Your task to perform on an android device: change text size in settings app Image 0: 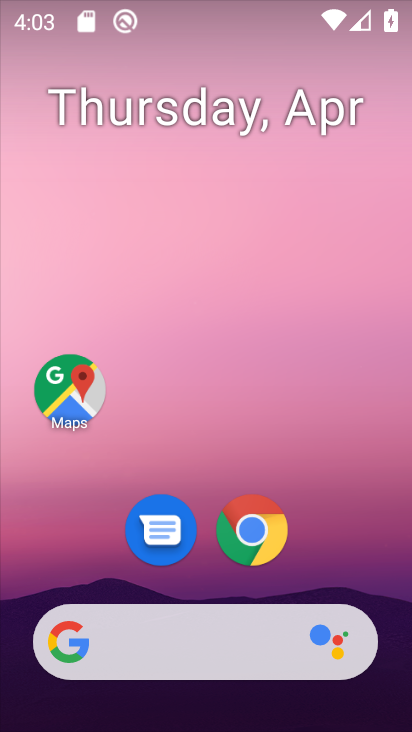
Step 0: drag from (191, 566) to (309, 2)
Your task to perform on an android device: change text size in settings app Image 1: 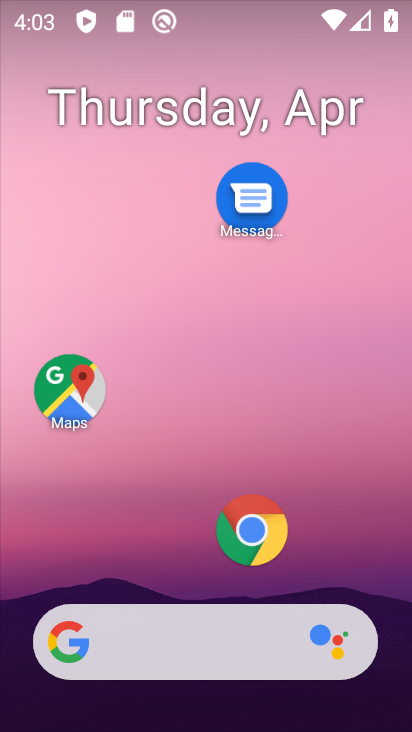
Step 1: drag from (145, 558) to (287, 0)
Your task to perform on an android device: change text size in settings app Image 2: 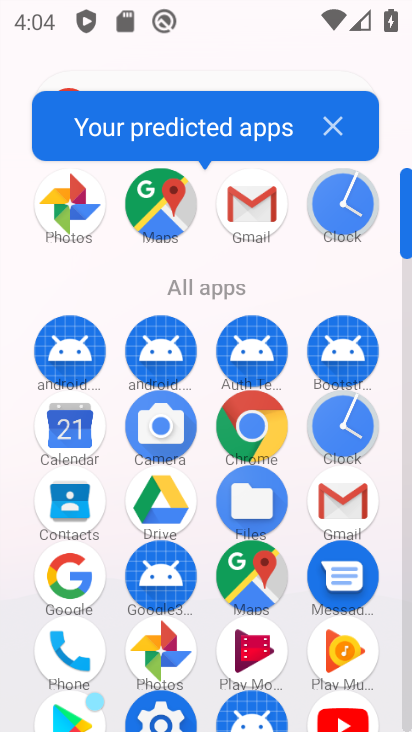
Step 2: click (163, 725)
Your task to perform on an android device: change text size in settings app Image 3: 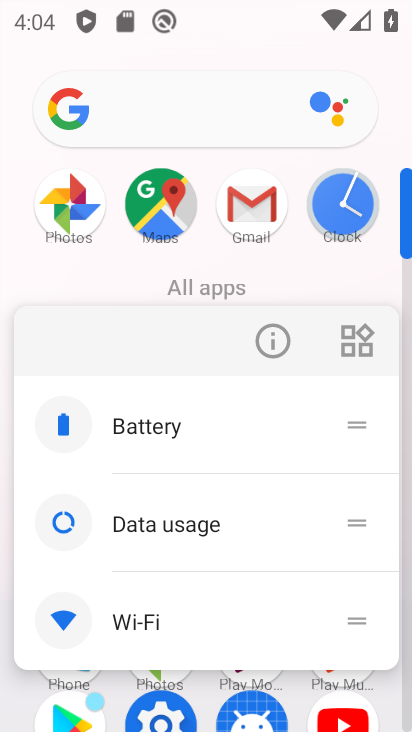
Step 3: click (165, 719)
Your task to perform on an android device: change text size in settings app Image 4: 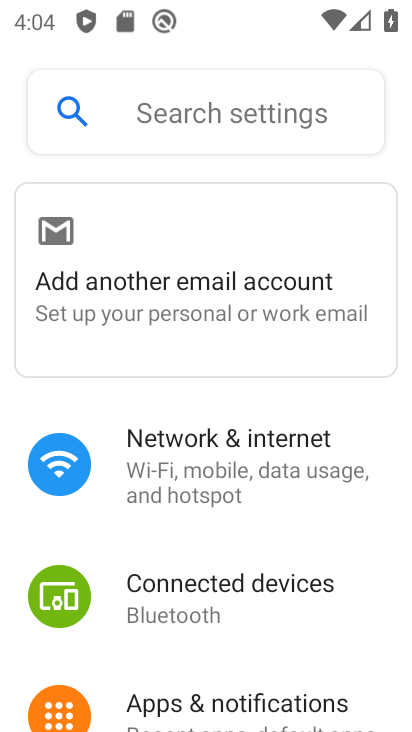
Step 4: click (172, 118)
Your task to perform on an android device: change text size in settings app Image 5: 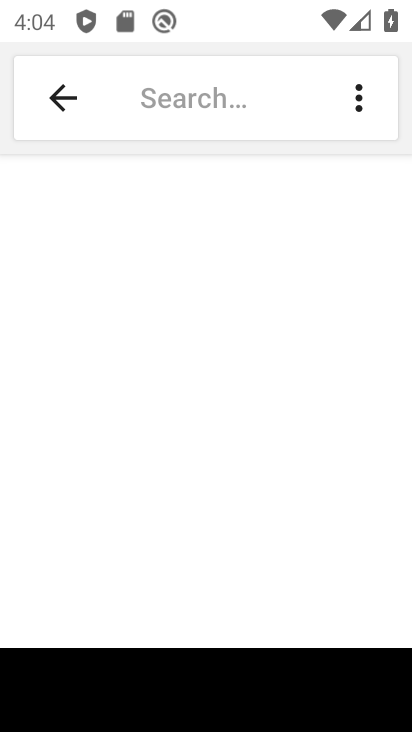
Step 5: type "text size"
Your task to perform on an android device: change text size in settings app Image 6: 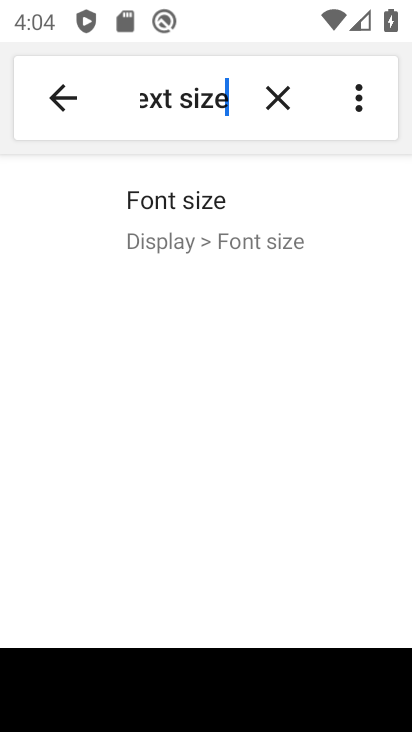
Step 6: click (181, 232)
Your task to perform on an android device: change text size in settings app Image 7: 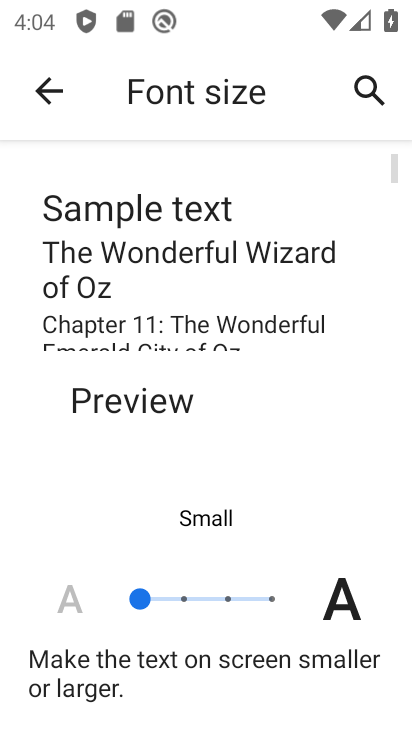
Step 7: task complete